Your task to perform on an android device: open chrome and create a bookmark for the current page Image 0: 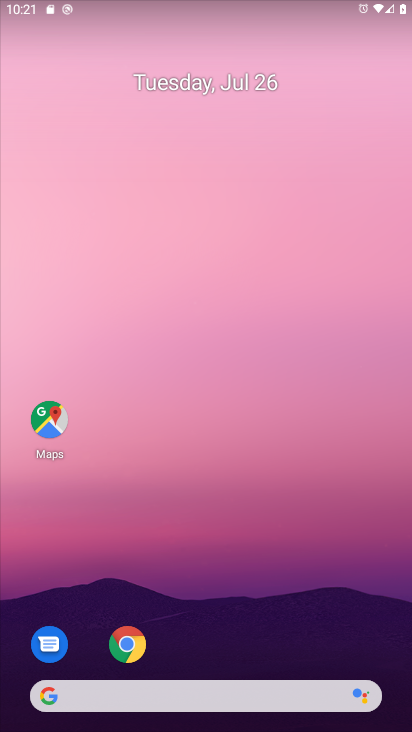
Step 0: click (133, 634)
Your task to perform on an android device: open chrome and create a bookmark for the current page Image 1: 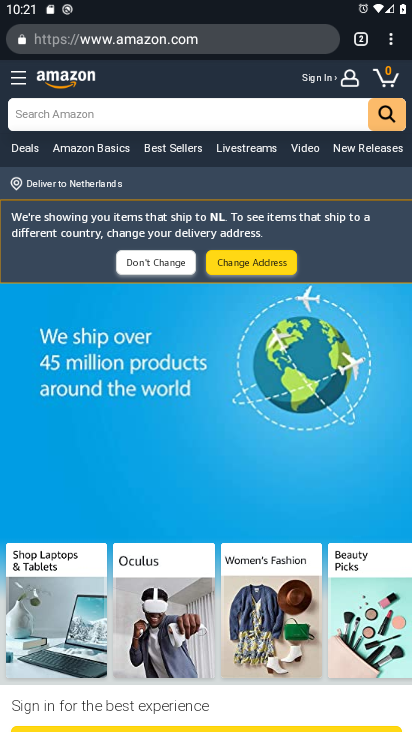
Step 1: click (396, 41)
Your task to perform on an android device: open chrome and create a bookmark for the current page Image 2: 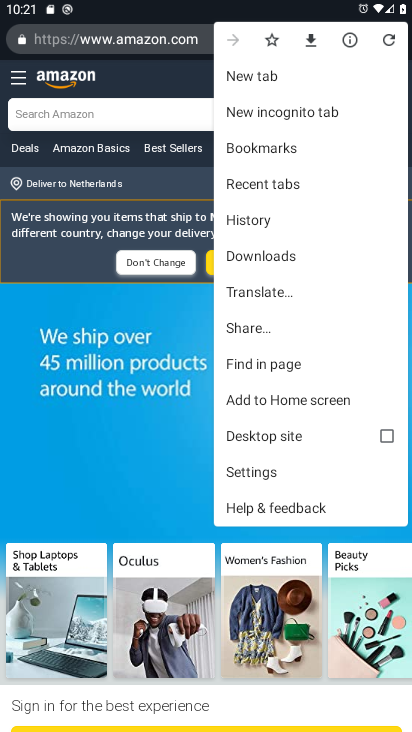
Step 2: click (275, 36)
Your task to perform on an android device: open chrome and create a bookmark for the current page Image 3: 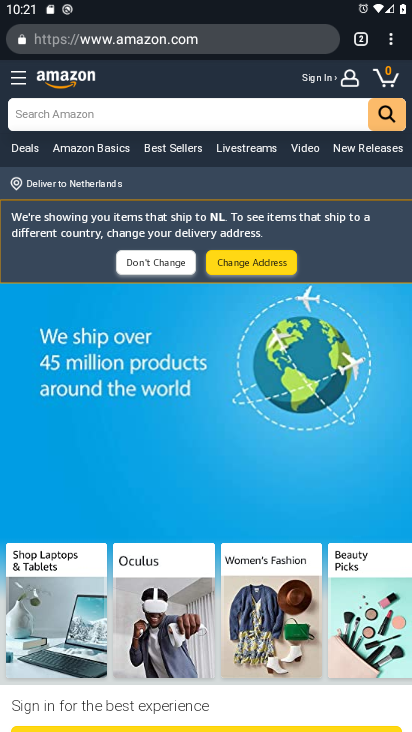
Step 3: task complete